Your task to perform on an android device: move a message to another label in the gmail app Image 0: 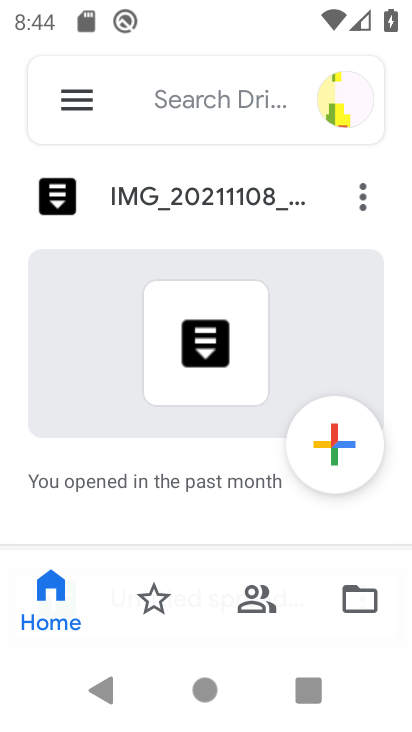
Step 0: press home button
Your task to perform on an android device: move a message to another label in the gmail app Image 1: 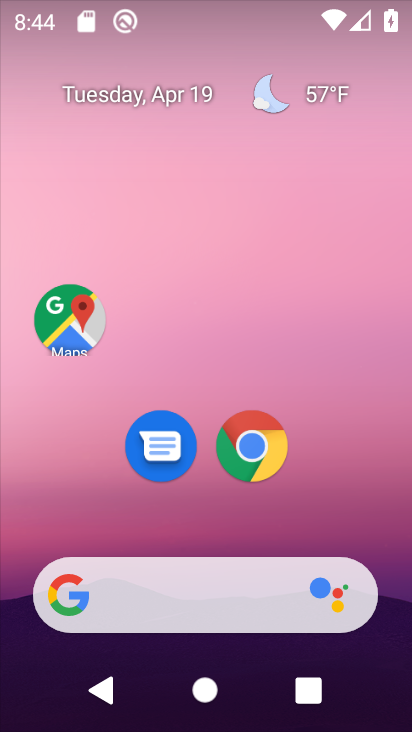
Step 1: drag from (318, 503) to (308, 123)
Your task to perform on an android device: move a message to another label in the gmail app Image 2: 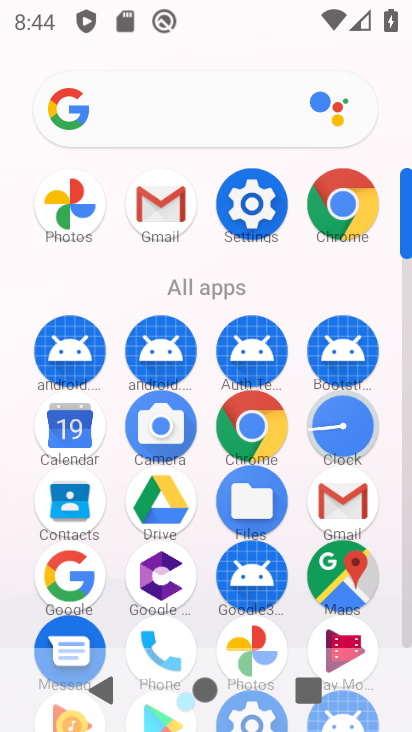
Step 2: click (166, 205)
Your task to perform on an android device: move a message to another label in the gmail app Image 3: 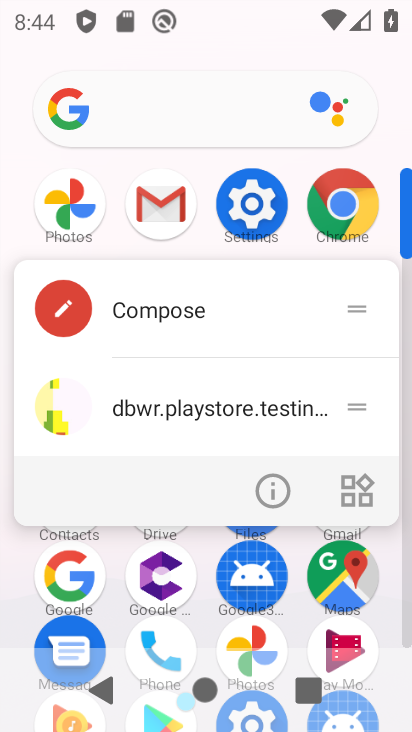
Step 3: click (166, 205)
Your task to perform on an android device: move a message to another label in the gmail app Image 4: 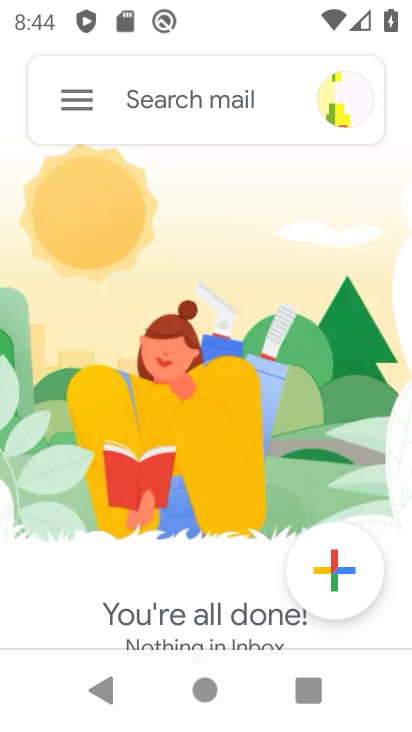
Step 4: click (85, 111)
Your task to perform on an android device: move a message to another label in the gmail app Image 5: 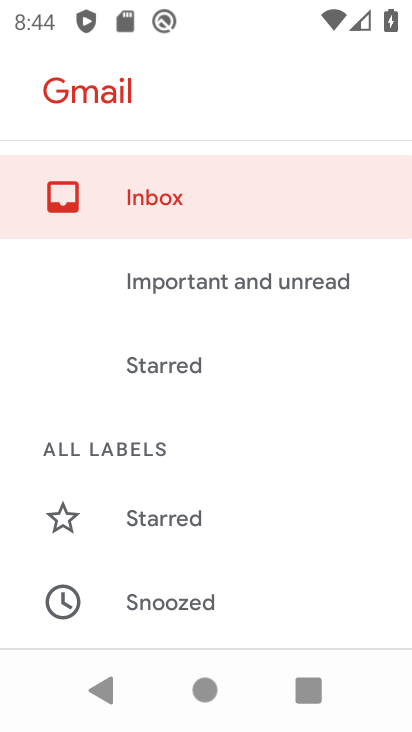
Step 5: task complete